Your task to perform on an android device: turn off translation in the chrome app Image 0: 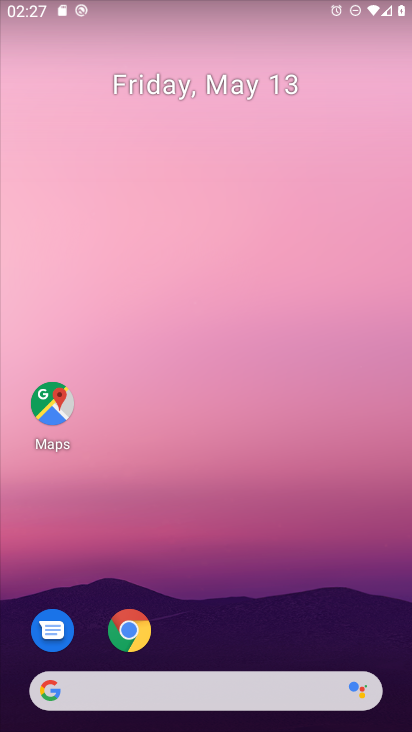
Step 0: drag from (157, 706) to (217, 195)
Your task to perform on an android device: turn off translation in the chrome app Image 1: 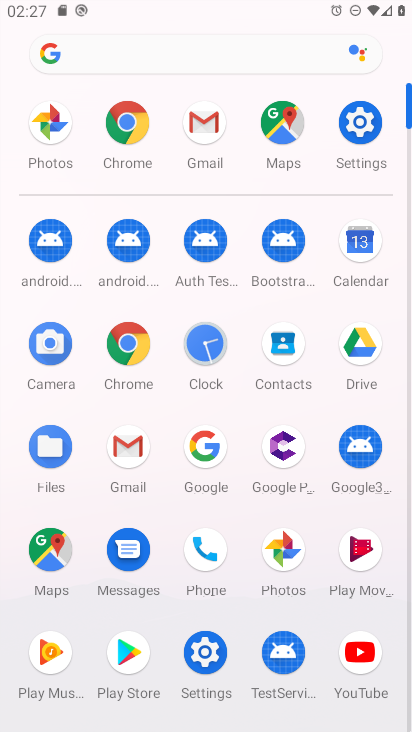
Step 1: click (130, 347)
Your task to perform on an android device: turn off translation in the chrome app Image 2: 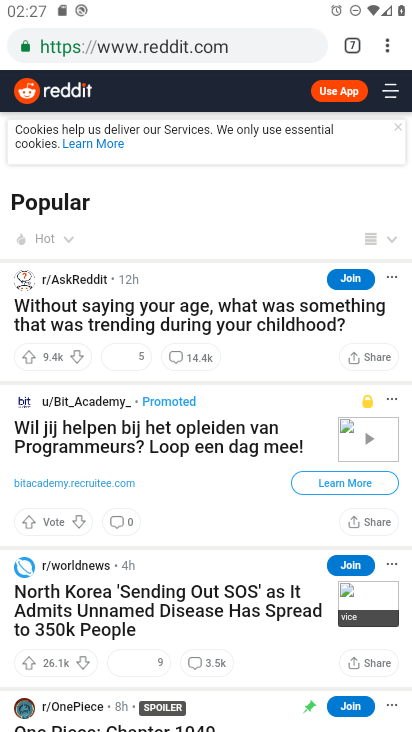
Step 2: click (393, 50)
Your task to perform on an android device: turn off translation in the chrome app Image 3: 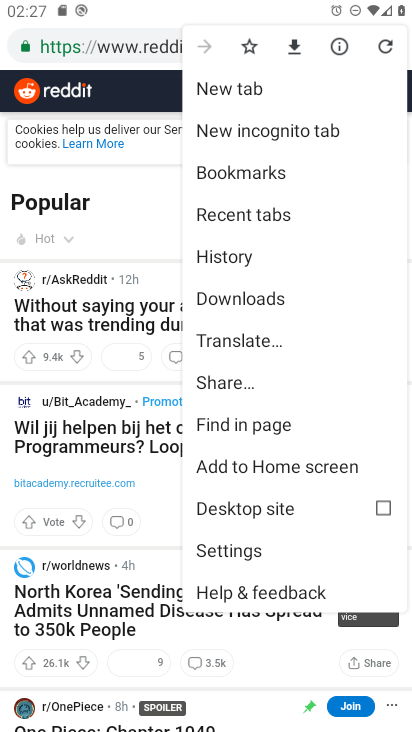
Step 3: click (258, 550)
Your task to perform on an android device: turn off translation in the chrome app Image 4: 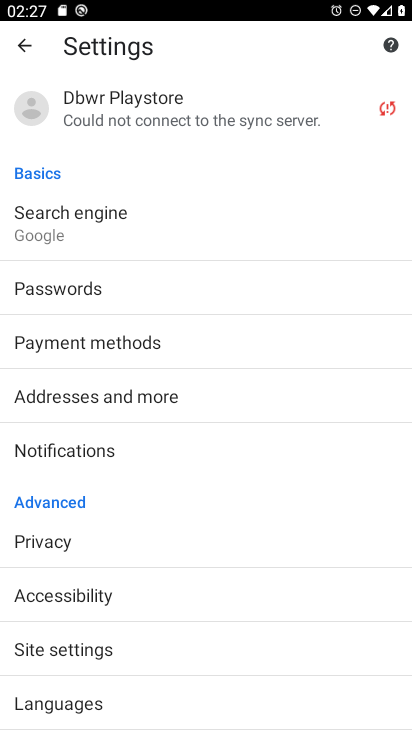
Step 4: click (83, 705)
Your task to perform on an android device: turn off translation in the chrome app Image 5: 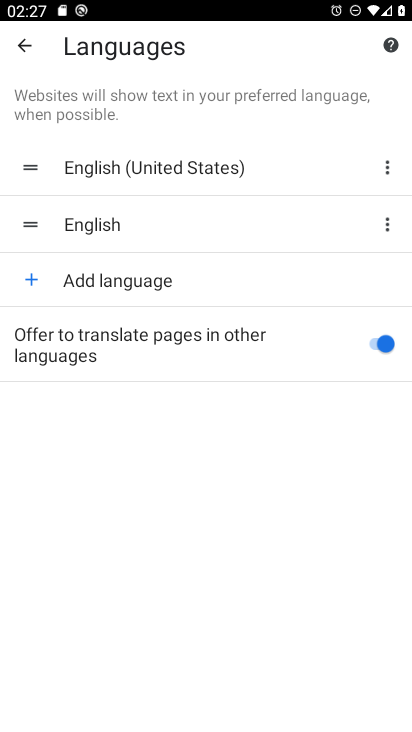
Step 5: click (212, 342)
Your task to perform on an android device: turn off translation in the chrome app Image 6: 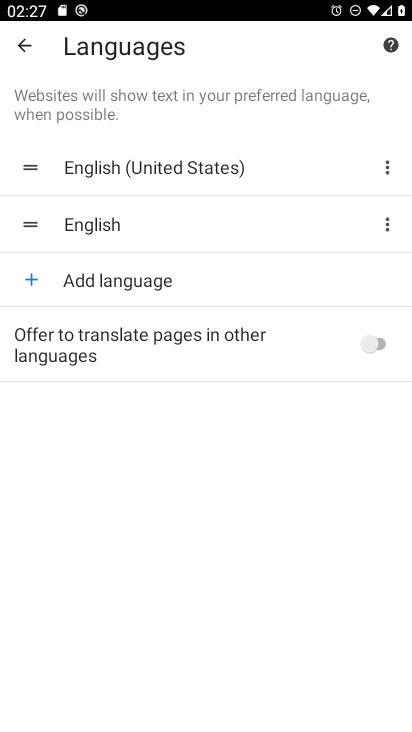
Step 6: task complete